Your task to perform on an android device: turn vacation reply on in the gmail app Image 0: 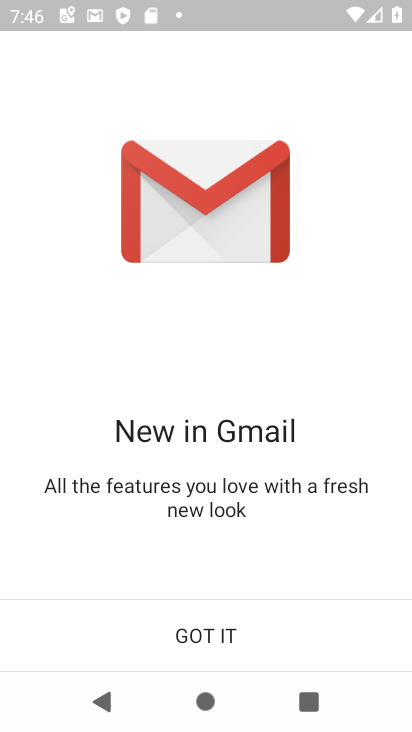
Step 0: click (304, 625)
Your task to perform on an android device: turn vacation reply on in the gmail app Image 1: 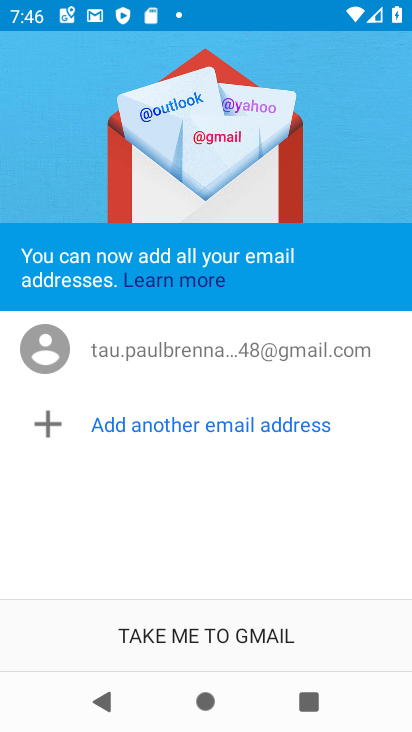
Step 1: click (277, 627)
Your task to perform on an android device: turn vacation reply on in the gmail app Image 2: 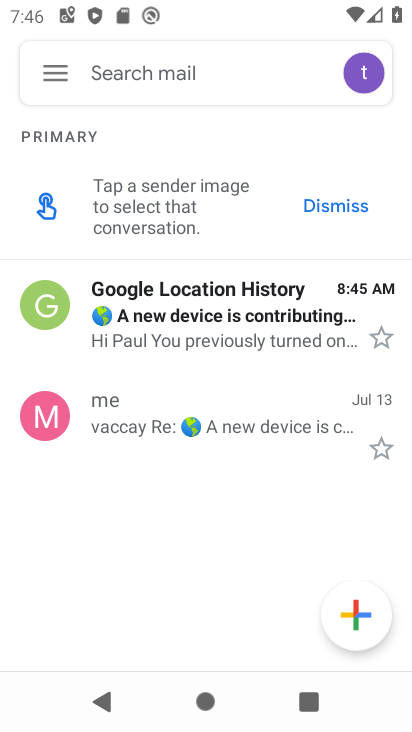
Step 2: click (54, 67)
Your task to perform on an android device: turn vacation reply on in the gmail app Image 3: 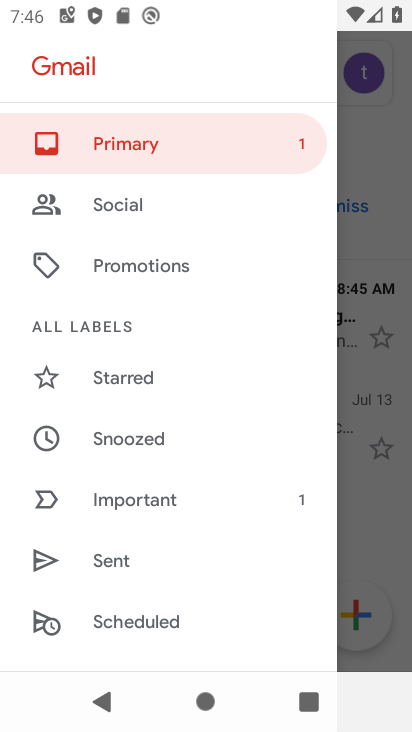
Step 3: drag from (138, 540) to (182, 37)
Your task to perform on an android device: turn vacation reply on in the gmail app Image 4: 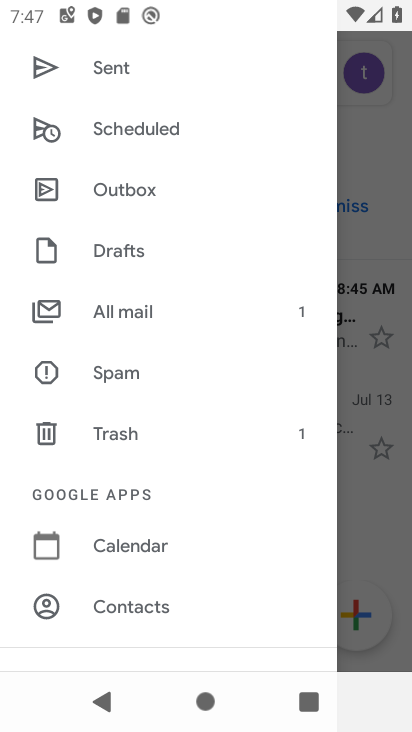
Step 4: drag from (197, 452) to (204, 137)
Your task to perform on an android device: turn vacation reply on in the gmail app Image 5: 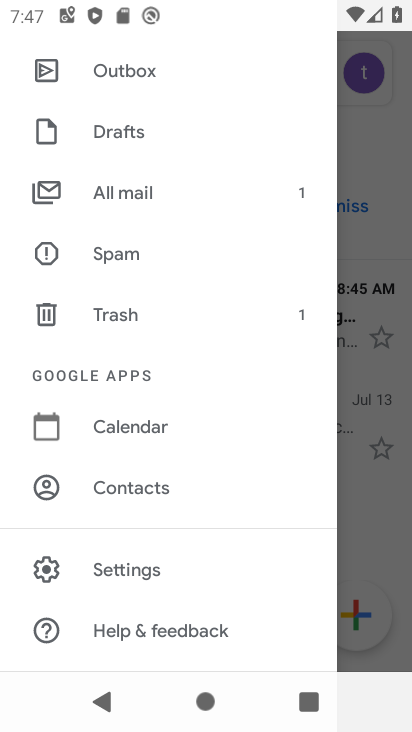
Step 5: click (142, 569)
Your task to perform on an android device: turn vacation reply on in the gmail app Image 6: 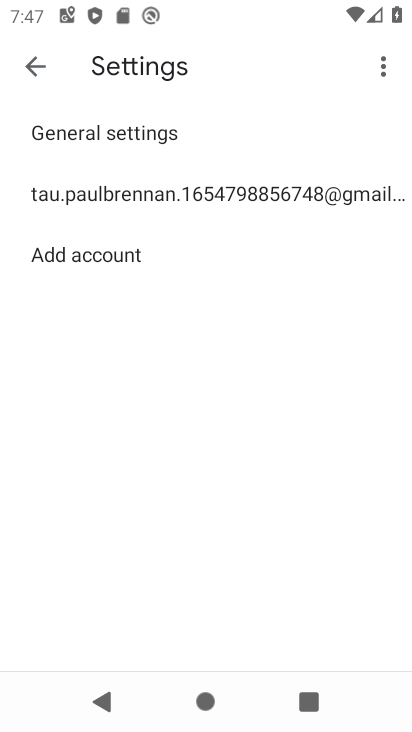
Step 6: click (244, 179)
Your task to perform on an android device: turn vacation reply on in the gmail app Image 7: 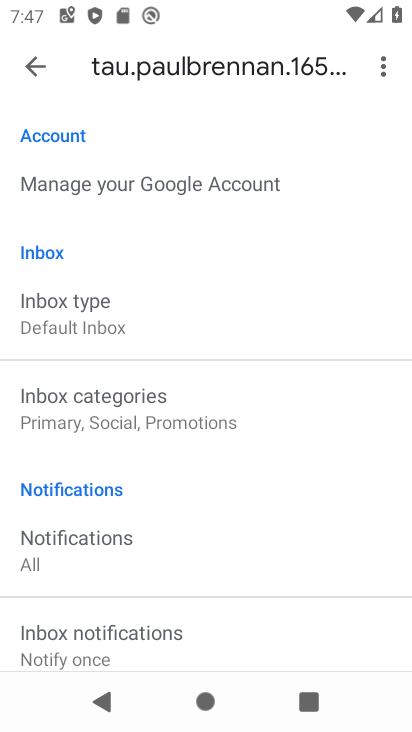
Step 7: drag from (213, 591) to (196, 187)
Your task to perform on an android device: turn vacation reply on in the gmail app Image 8: 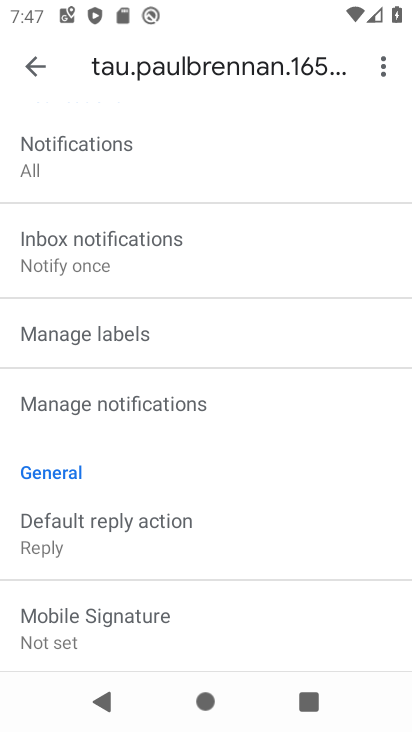
Step 8: drag from (260, 530) to (265, 141)
Your task to perform on an android device: turn vacation reply on in the gmail app Image 9: 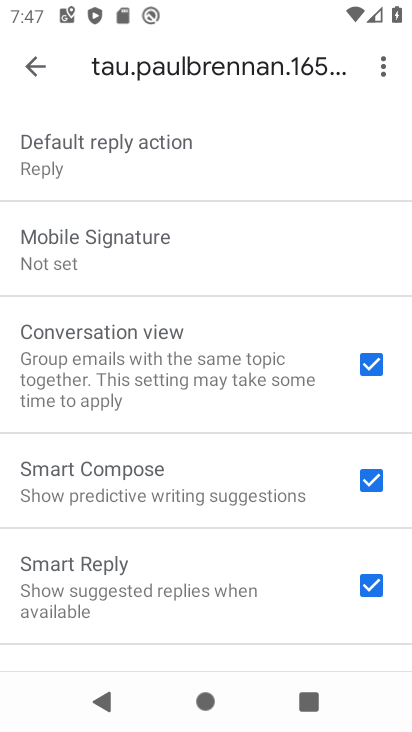
Step 9: drag from (264, 441) to (253, 132)
Your task to perform on an android device: turn vacation reply on in the gmail app Image 10: 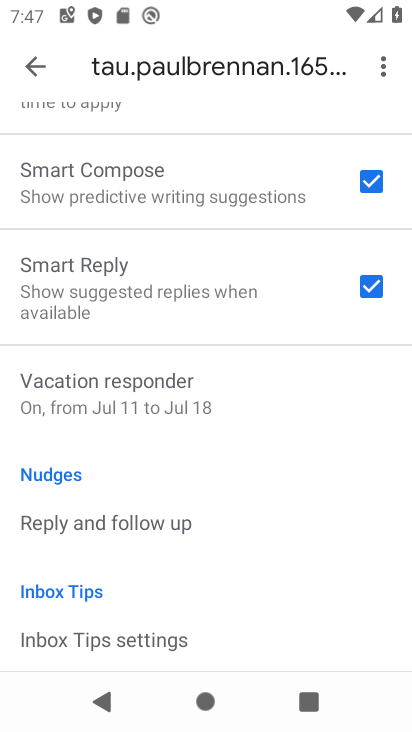
Step 10: click (215, 393)
Your task to perform on an android device: turn vacation reply on in the gmail app Image 11: 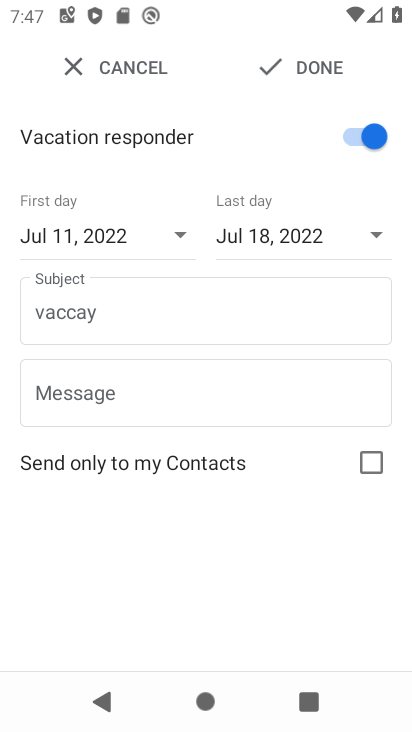
Step 11: task complete